Your task to perform on an android device: empty trash in google photos Image 0: 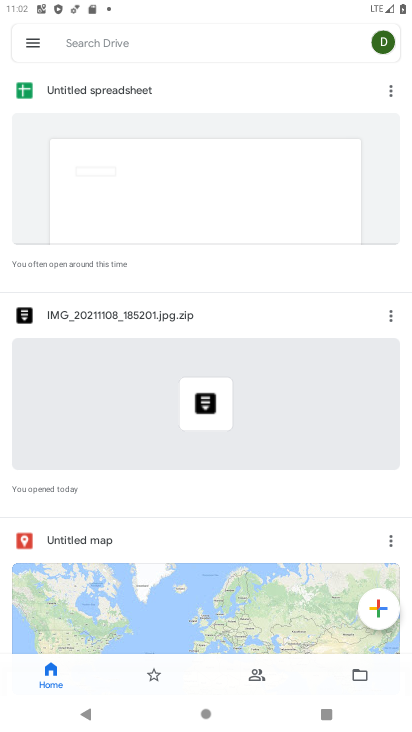
Step 0: press home button
Your task to perform on an android device: empty trash in google photos Image 1: 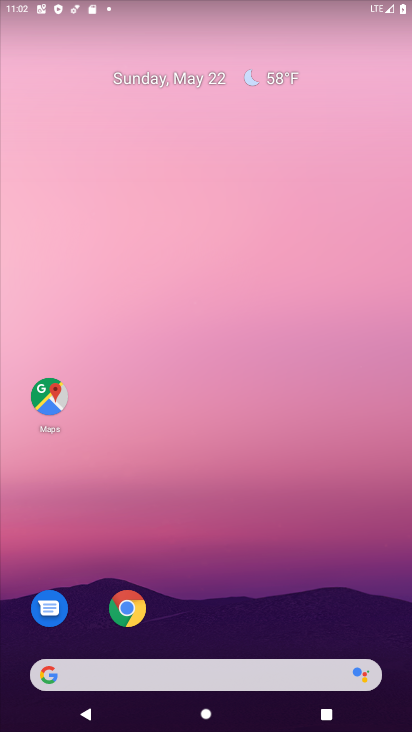
Step 1: drag from (228, 724) to (187, 210)
Your task to perform on an android device: empty trash in google photos Image 2: 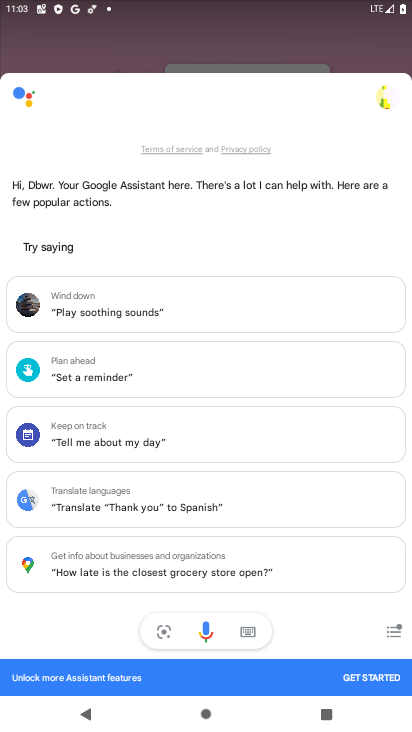
Step 2: press home button
Your task to perform on an android device: empty trash in google photos Image 3: 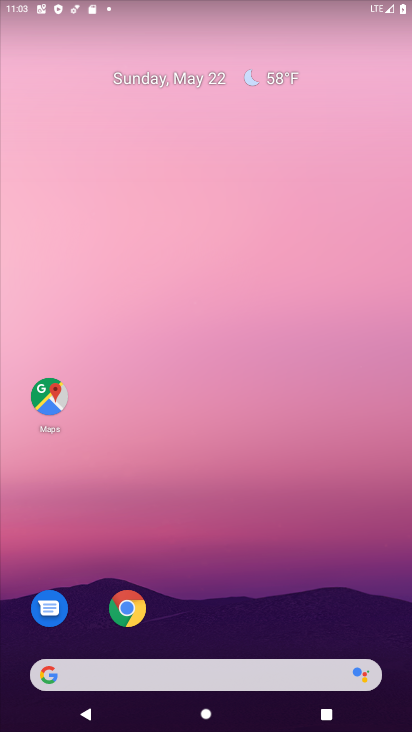
Step 3: drag from (215, 724) to (223, 63)
Your task to perform on an android device: empty trash in google photos Image 4: 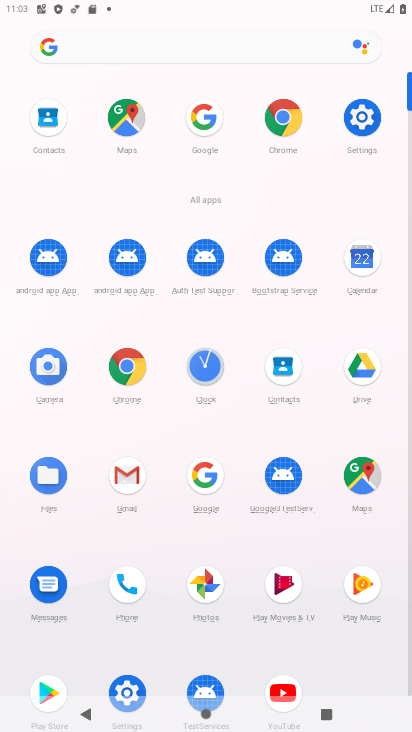
Step 4: click (210, 577)
Your task to perform on an android device: empty trash in google photos Image 5: 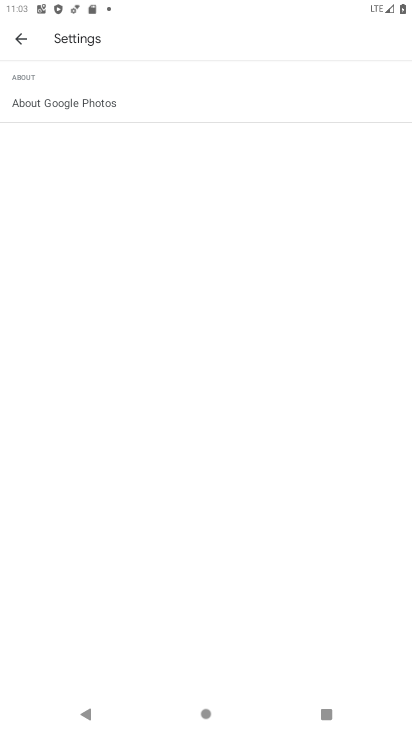
Step 5: click (16, 37)
Your task to perform on an android device: empty trash in google photos Image 6: 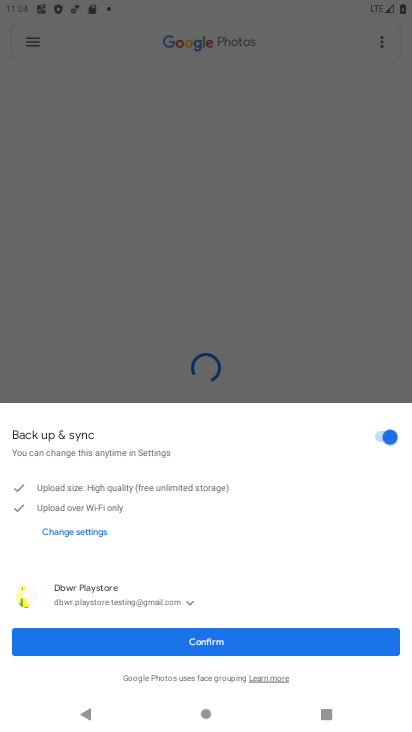
Step 6: click (221, 643)
Your task to perform on an android device: empty trash in google photos Image 7: 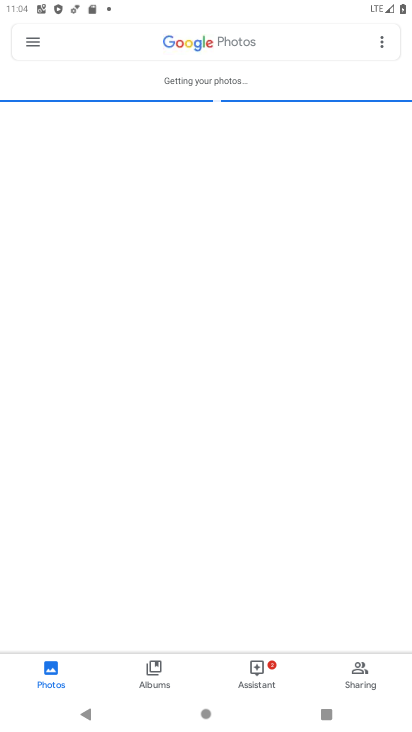
Step 7: click (28, 42)
Your task to perform on an android device: empty trash in google photos Image 8: 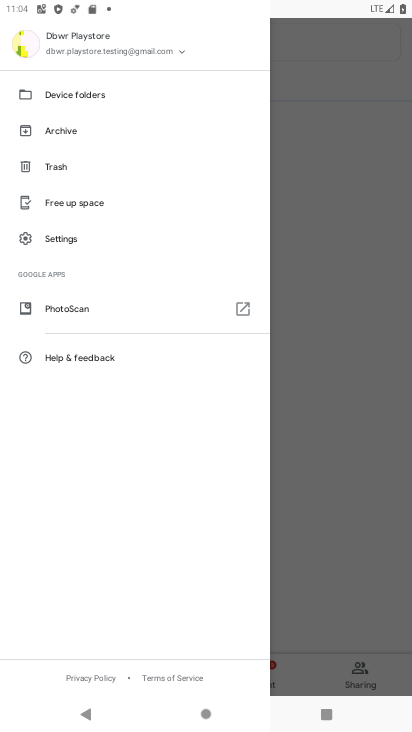
Step 8: click (57, 168)
Your task to perform on an android device: empty trash in google photos Image 9: 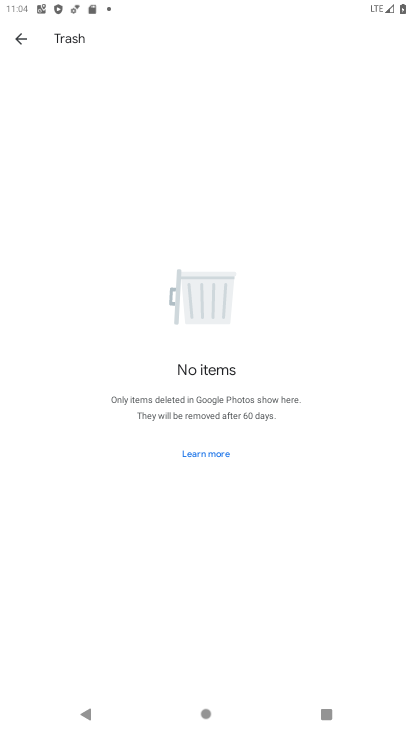
Step 9: task complete